Your task to perform on an android device: Open Google Image 0: 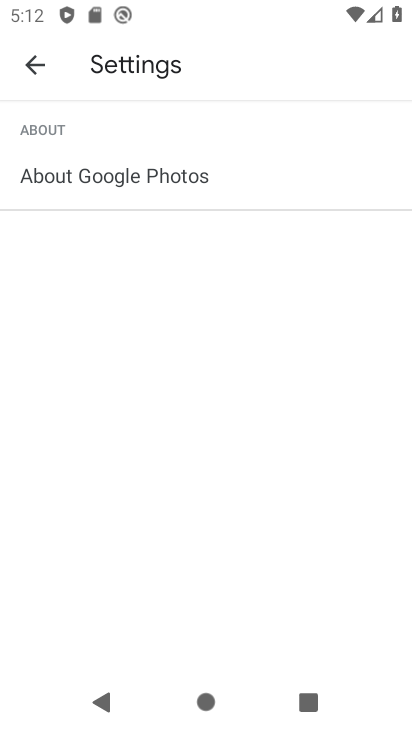
Step 0: press back button
Your task to perform on an android device: Open Google Image 1: 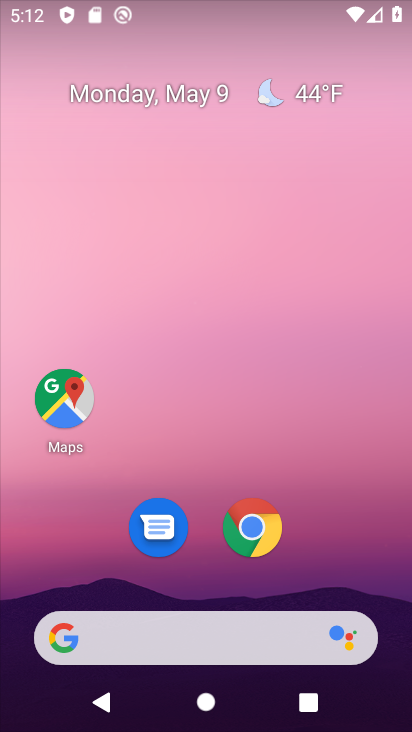
Step 1: drag from (375, 567) to (266, 29)
Your task to perform on an android device: Open Google Image 2: 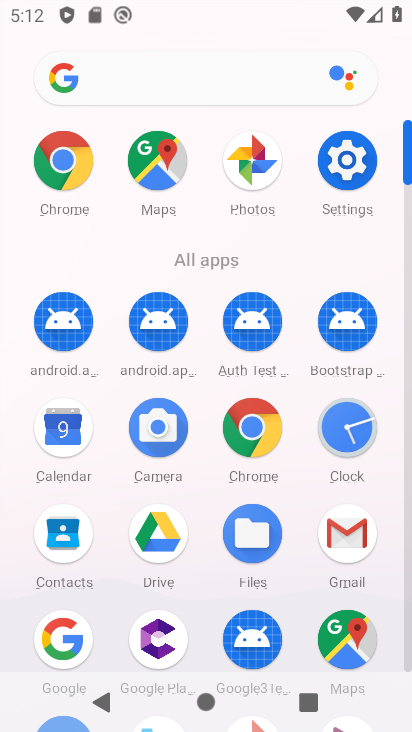
Step 2: click (254, 423)
Your task to perform on an android device: Open Google Image 3: 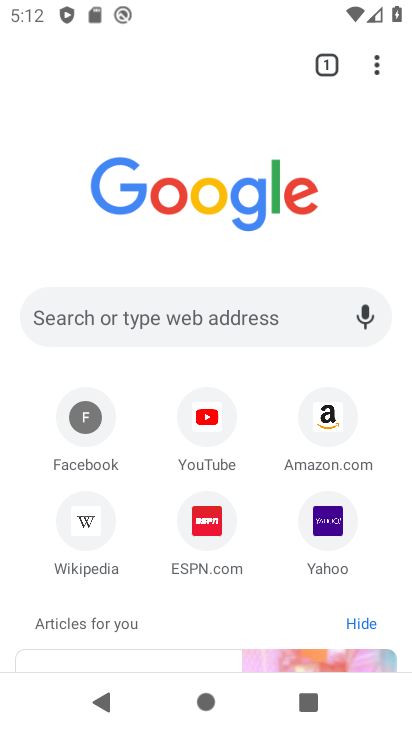
Step 3: click (161, 317)
Your task to perform on an android device: Open Google Image 4: 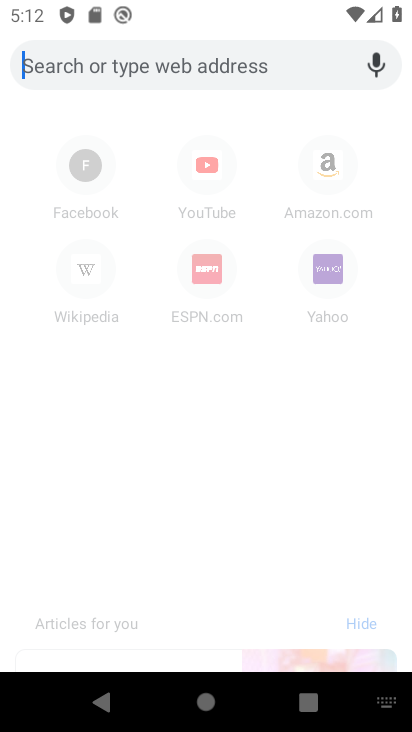
Step 4: type "Google"
Your task to perform on an android device: Open Google Image 5: 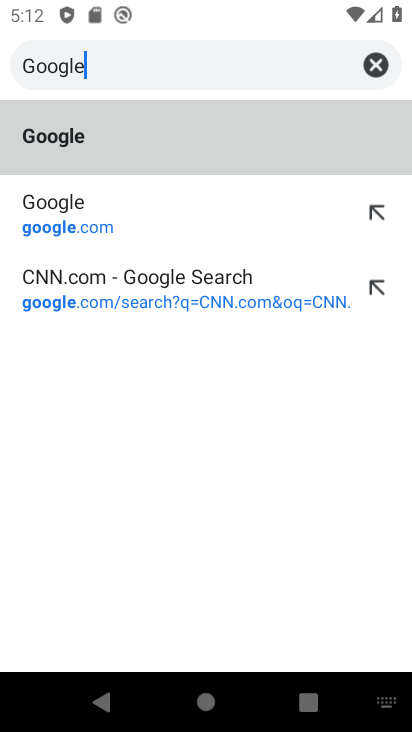
Step 5: type ""
Your task to perform on an android device: Open Google Image 6: 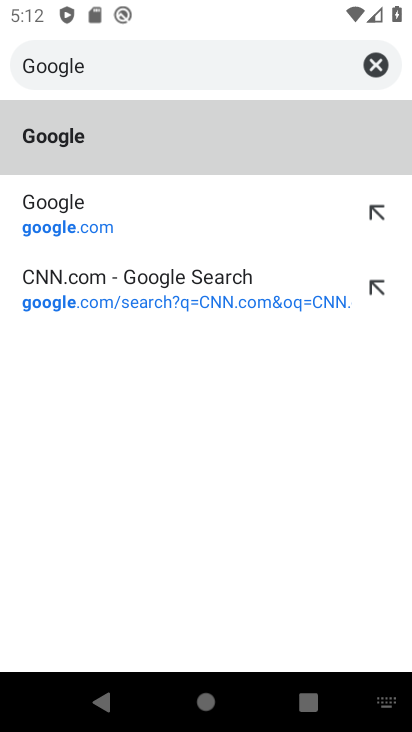
Step 6: click (104, 231)
Your task to perform on an android device: Open Google Image 7: 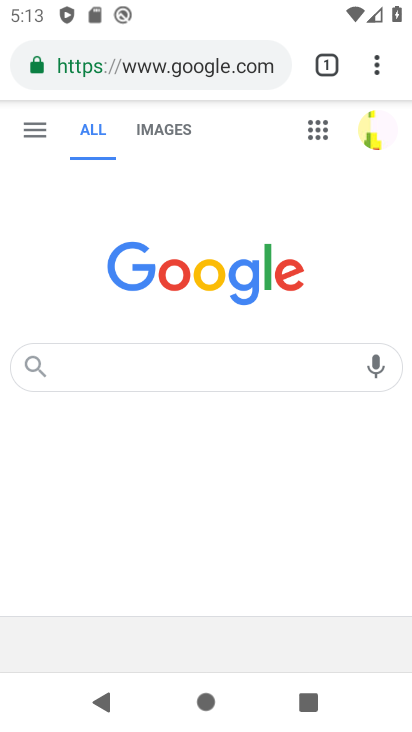
Step 7: task complete